Your task to perform on an android device: search for starred emails in the gmail app Image 0: 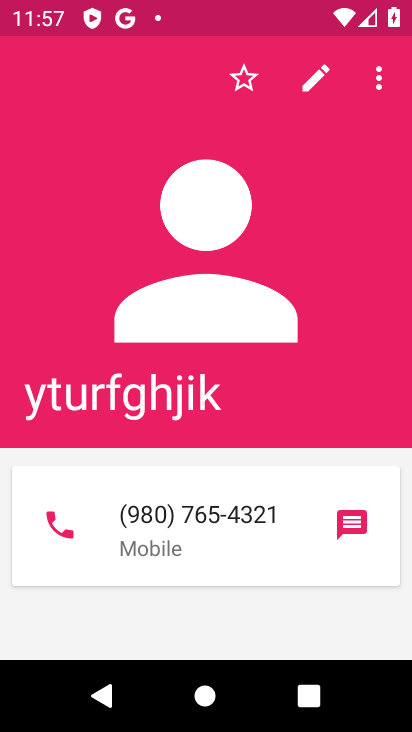
Step 0: press home button
Your task to perform on an android device: search for starred emails in the gmail app Image 1: 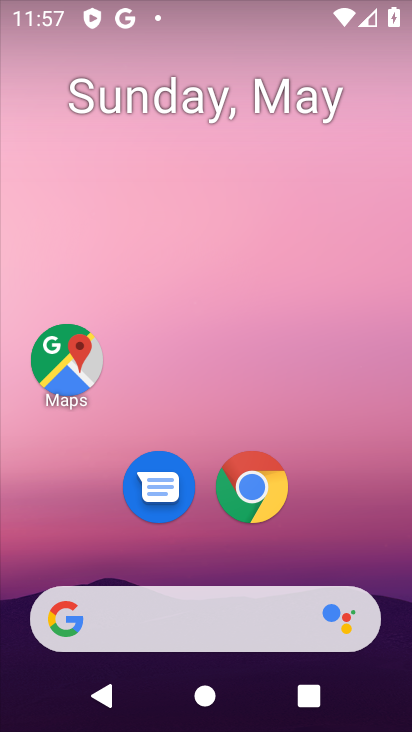
Step 1: drag from (203, 565) to (267, 52)
Your task to perform on an android device: search for starred emails in the gmail app Image 2: 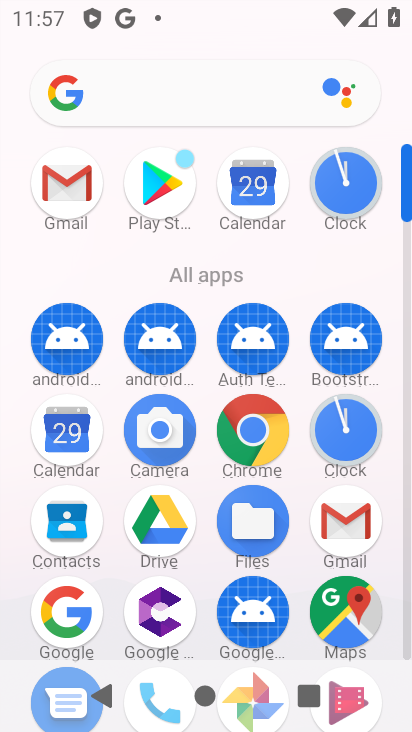
Step 2: click (357, 516)
Your task to perform on an android device: search for starred emails in the gmail app Image 3: 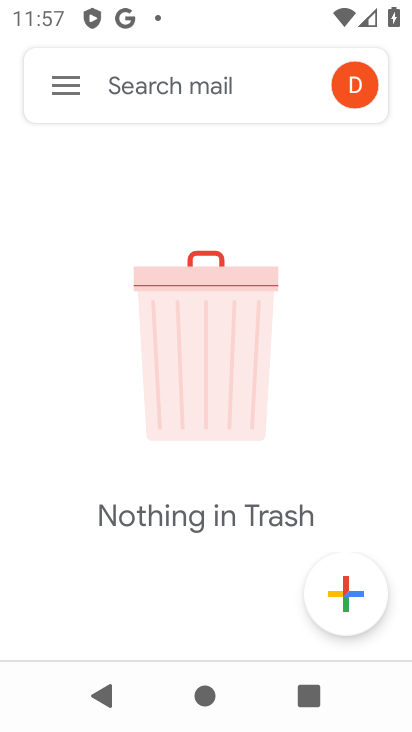
Step 3: click (62, 80)
Your task to perform on an android device: search for starred emails in the gmail app Image 4: 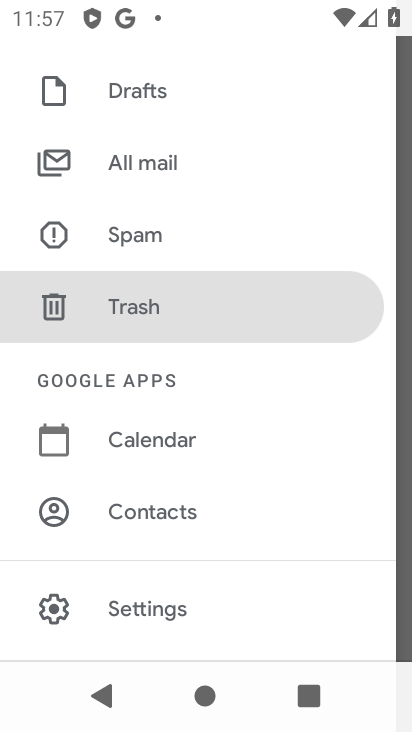
Step 4: drag from (227, 255) to (290, 685)
Your task to perform on an android device: search for starred emails in the gmail app Image 5: 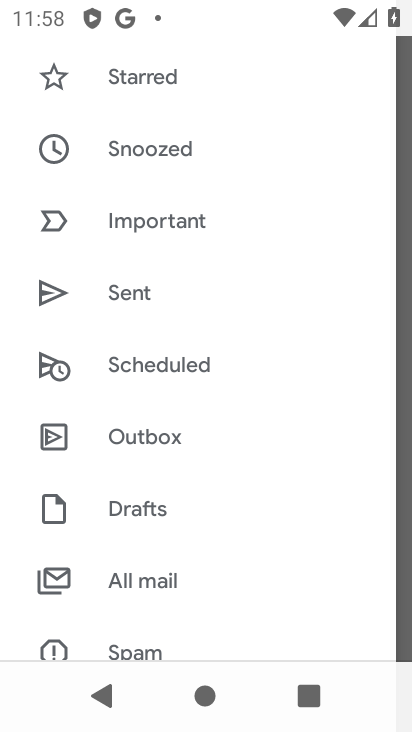
Step 5: click (170, 86)
Your task to perform on an android device: search for starred emails in the gmail app Image 6: 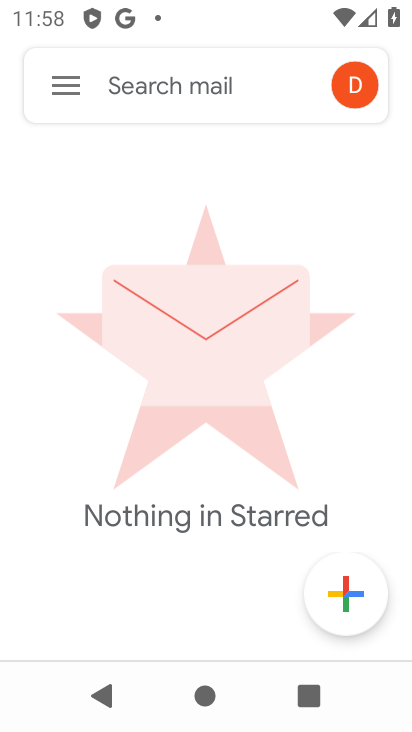
Step 6: task complete